Your task to perform on an android device: toggle wifi Image 0: 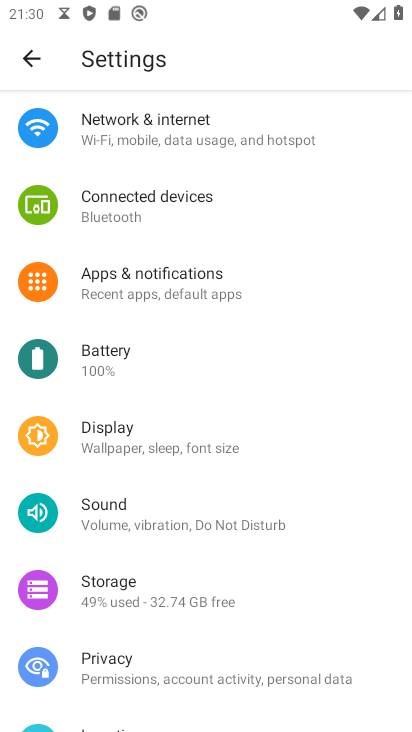
Step 0: click (262, 120)
Your task to perform on an android device: toggle wifi Image 1: 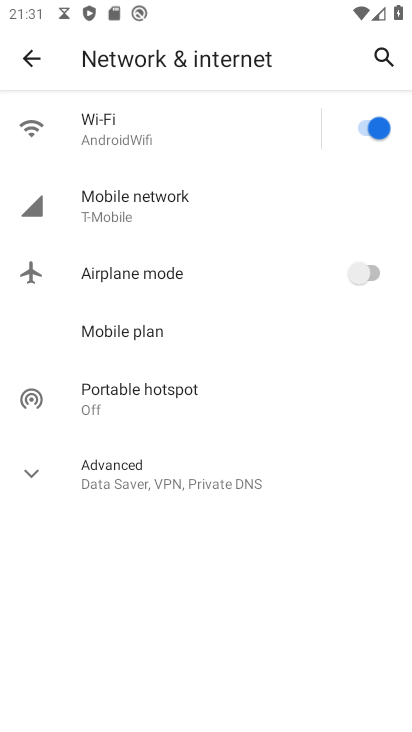
Step 1: click (359, 132)
Your task to perform on an android device: toggle wifi Image 2: 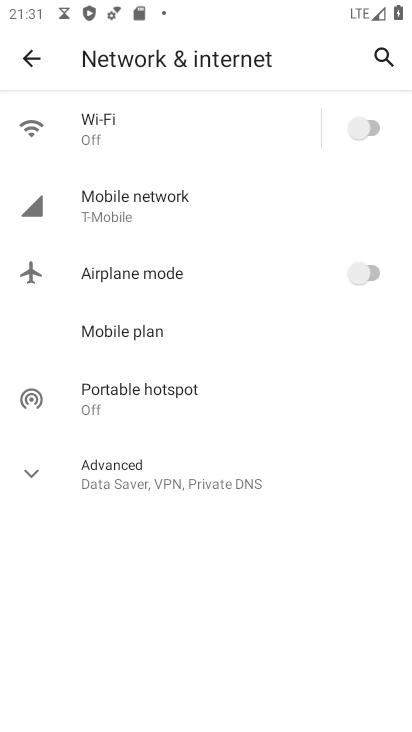
Step 2: task complete